Your task to perform on an android device: Open Google Image 0: 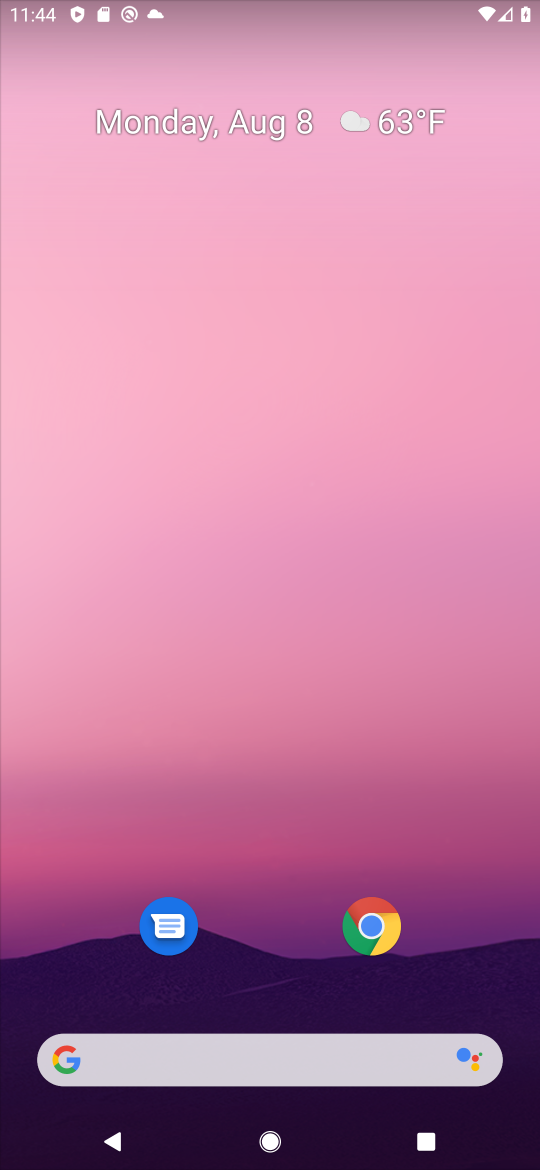
Step 0: drag from (146, 684) to (446, 37)
Your task to perform on an android device: Open Google Image 1: 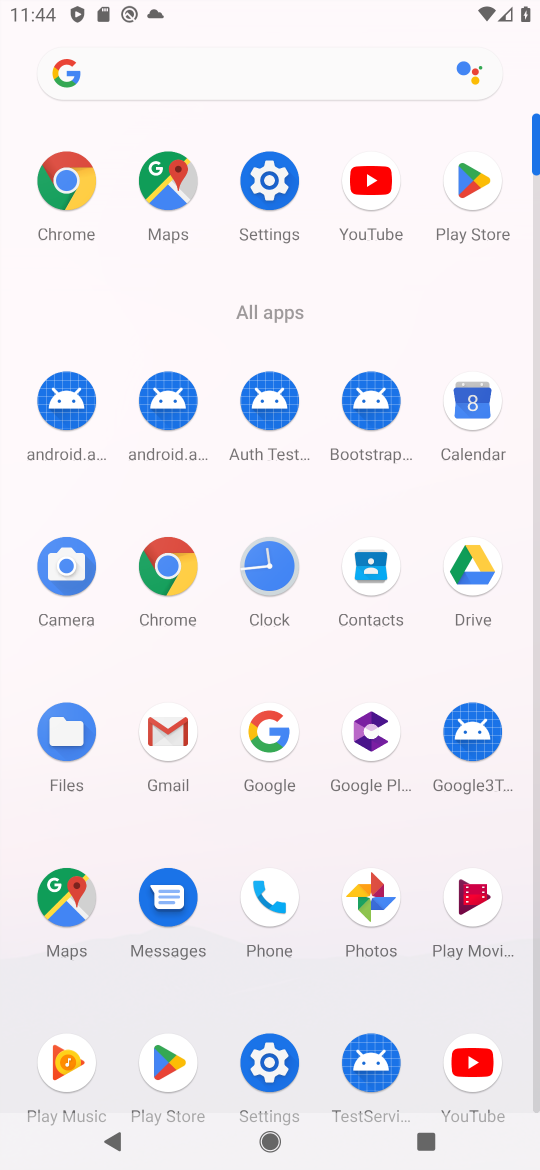
Step 1: click (266, 743)
Your task to perform on an android device: Open Google Image 2: 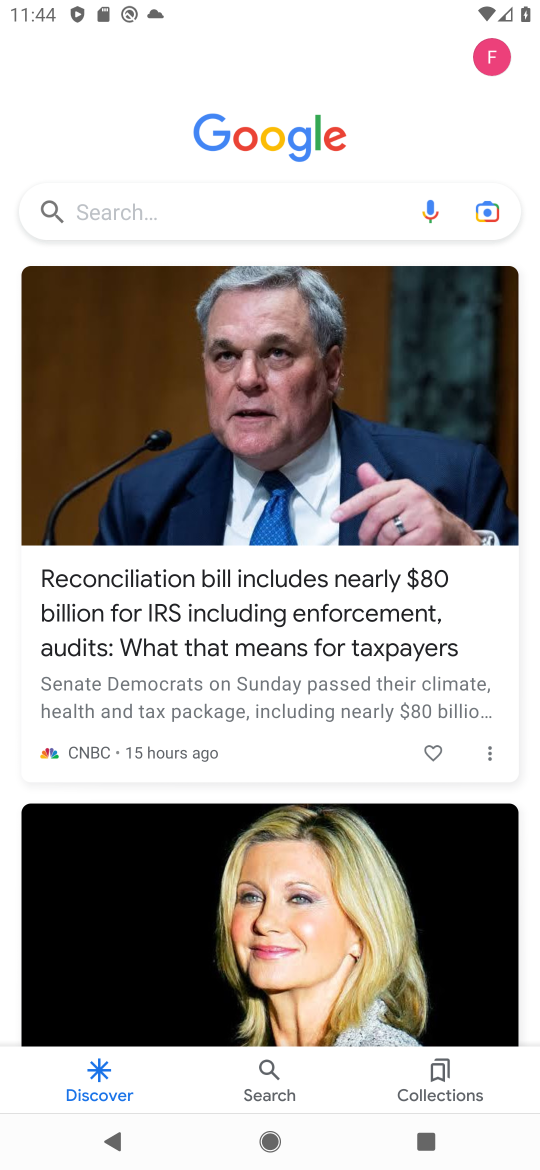
Step 2: task complete